Your task to perform on an android device: all mails in gmail Image 0: 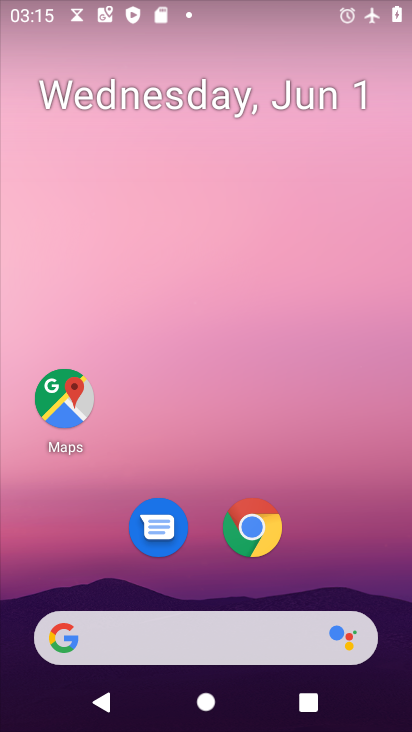
Step 0: drag from (323, 559) to (167, 44)
Your task to perform on an android device: all mails in gmail Image 1: 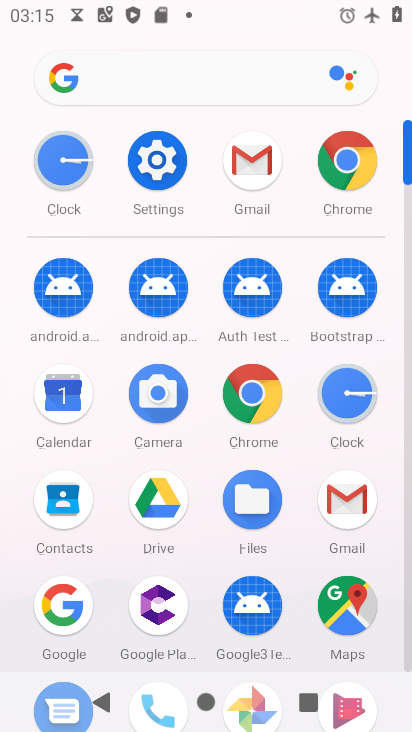
Step 1: click (252, 159)
Your task to perform on an android device: all mails in gmail Image 2: 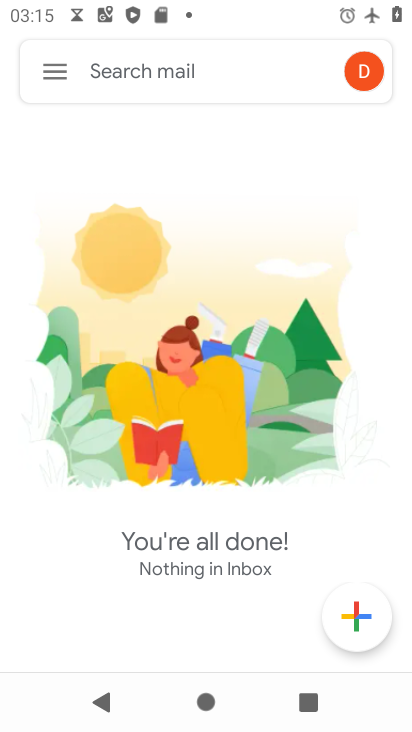
Step 2: click (45, 66)
Your task to perform on an android device: all mails in gmail Image 3: 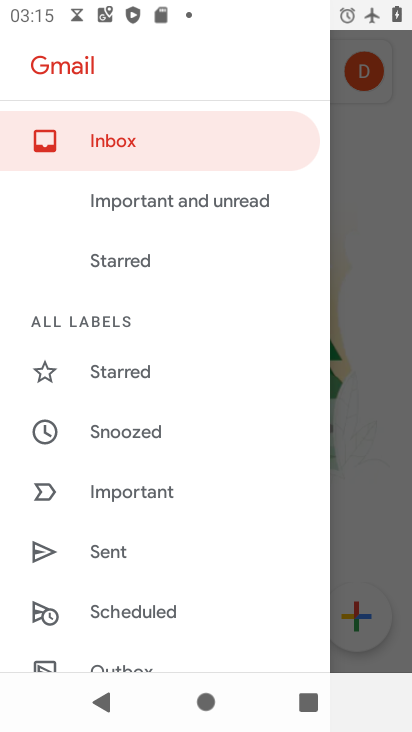
Step 3: drag from (132, 384) to (124, 308)
Your task to perform on an android device: all mails in gmail Image 4: 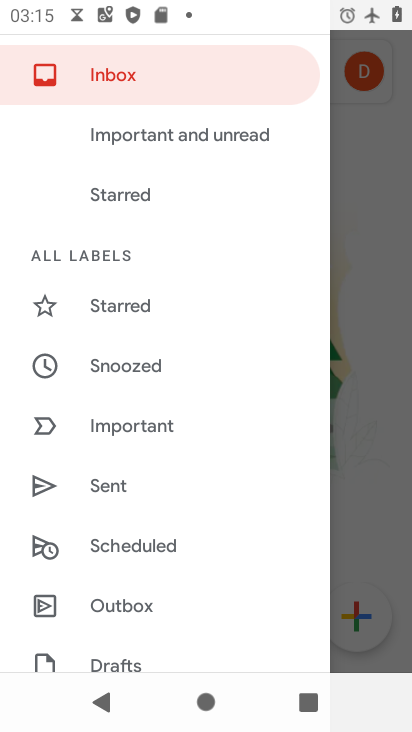
Step 4: drag from (116, 453) to (130, 404)
Your task to perform on an android device: all mails in gmail Image 5: 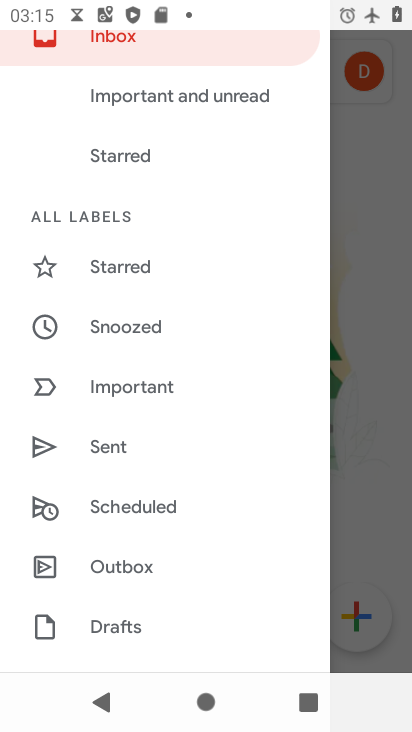
Step 5: drag from (125, 524) to (145, 497)
Your task to perform on an android device: all mails in gmail Image 6: 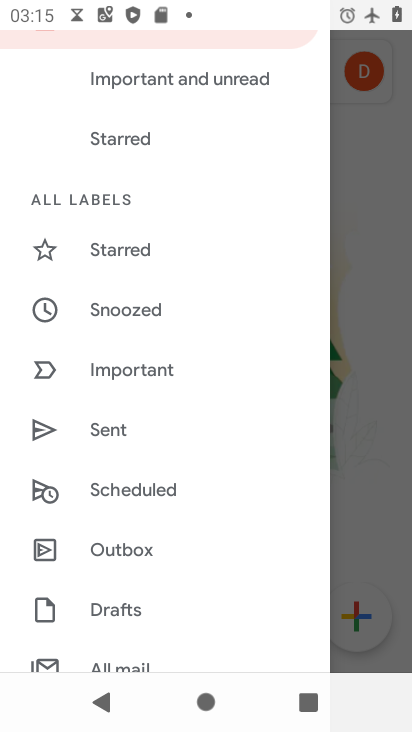
Step 6: drag from (118, 633) to (170, 542)
Your task to perform on an android device: all mails in gmail Image 7: 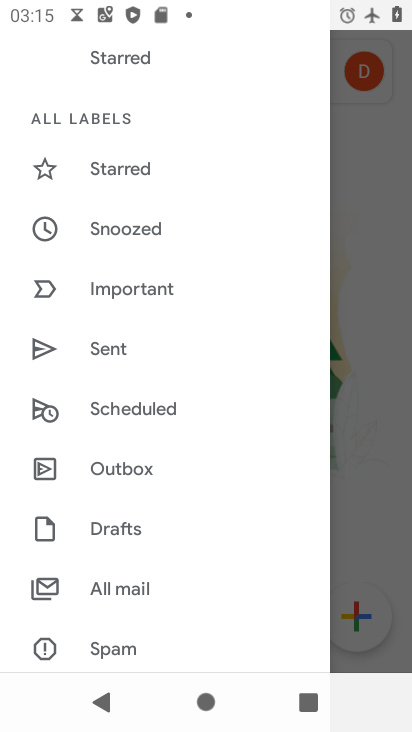
Step 7: click (121, 591)
Your task to perform on an android device: all mails in gmail Image 8: 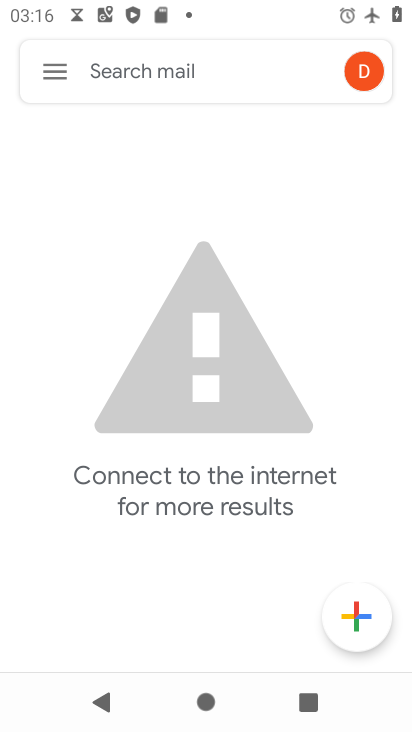
Step 8: task complete